Your task to perform on an android device: Open Google Image 0: 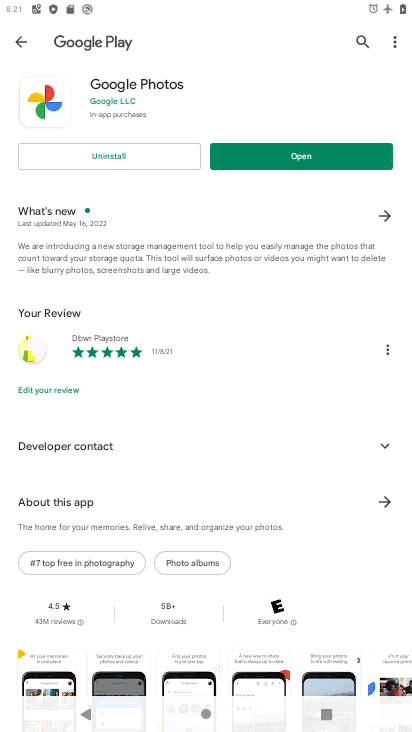
Step 0: press home button
Your task to perform on an android device: Open Google Image 1: 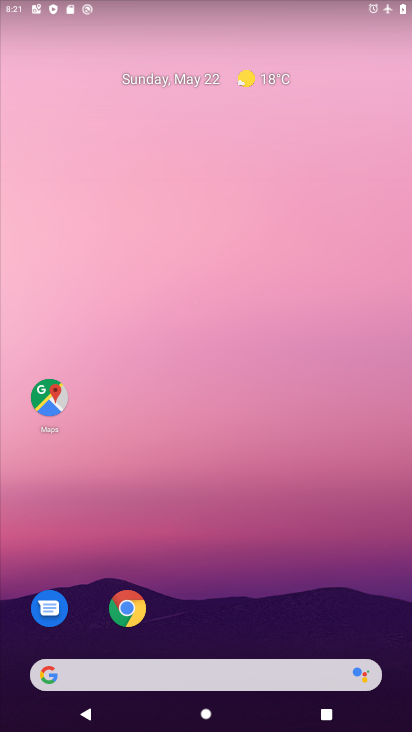
Step 1: drag from (231, 728) to (237, 160)
Your task to perform on an android device: Open Google Image 2: 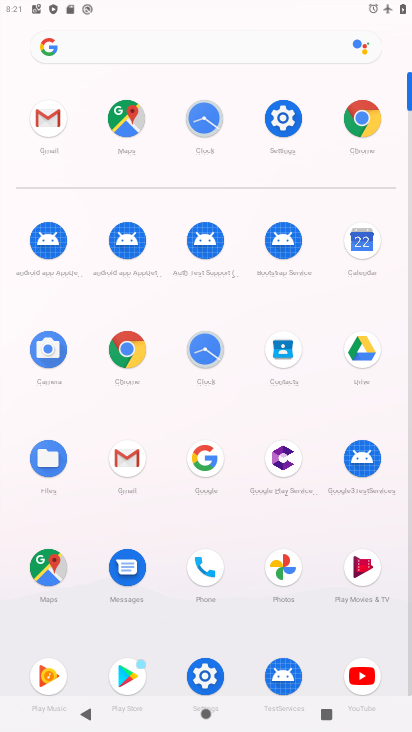
Step 2: click (209, 456)
Your task to perform on an android device: Open Google Image 3: 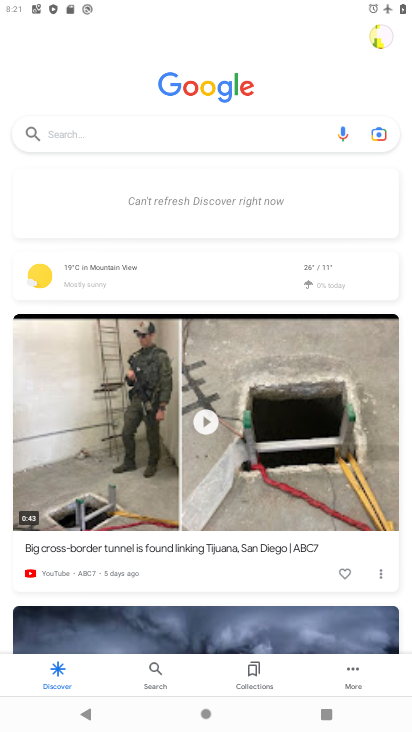
Step 3: task complete